Your task to perform on an android device: Show me popular games on the Play Store Image 0: 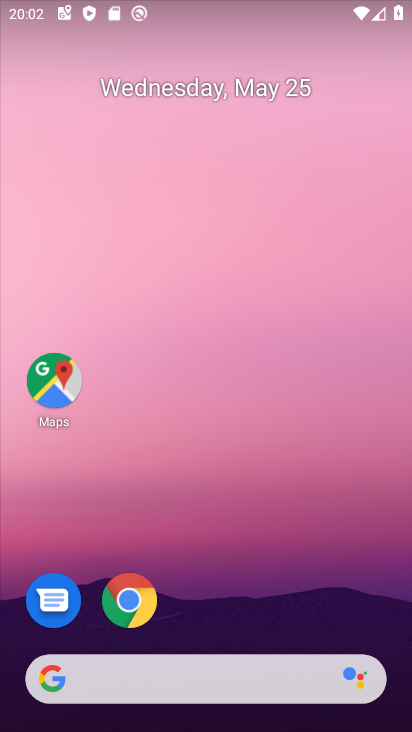
Step 0: drag from (350, 585) to (245, 149)
Your task to perform on an android device: Show me popular games on the Play Store Image 1: 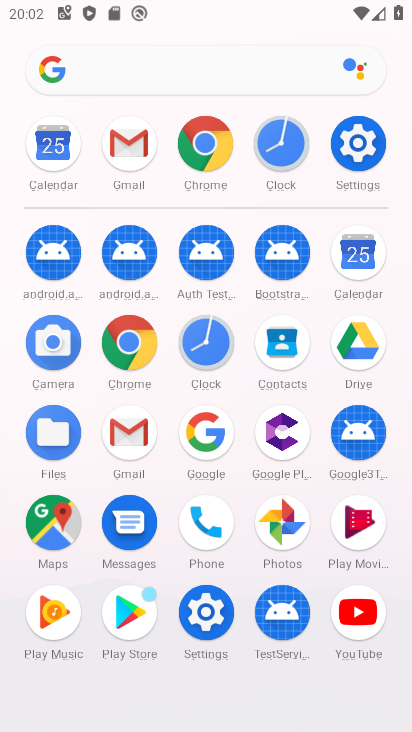
Step 1: click (118, 616)
Your task to perform on an android device: Show me popular games on the Play Store Image 2: 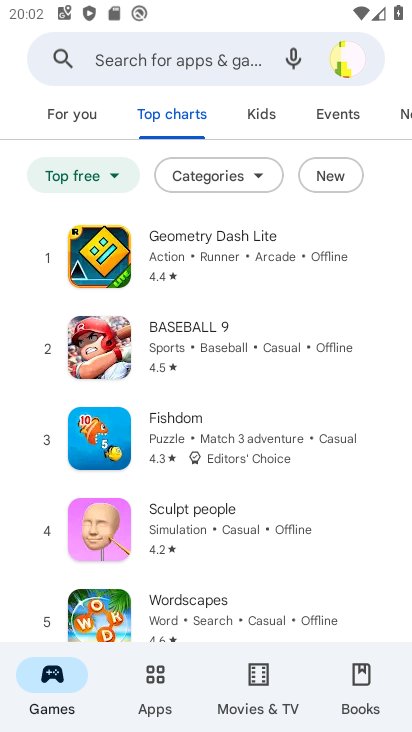
Step 2: task complete